Your task to perform on an android device: check android version Image 0: 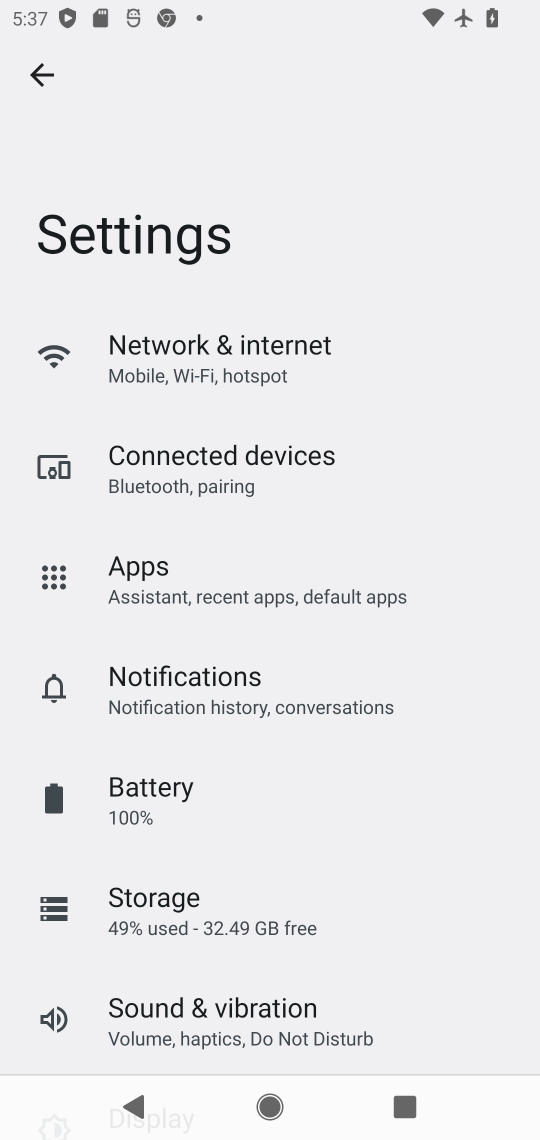
Step 0: drag from (357, 950) to (313, 311)
Your task to perform on an android device: check android version Image 1: 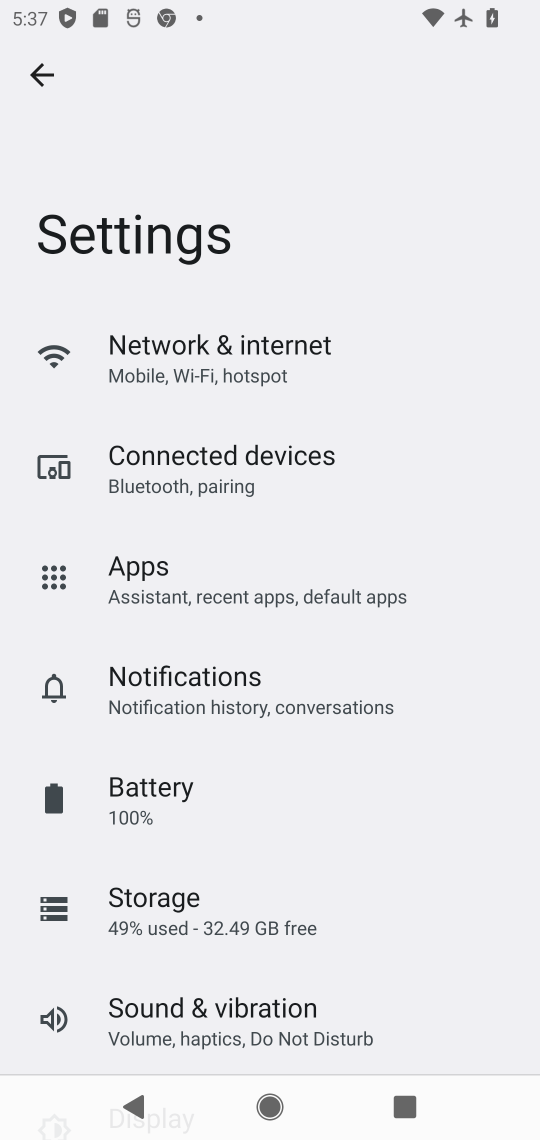
Step 1: drag from (301, 954) to (281, 344)
Your task to perform on an android device: check android version Image 2: 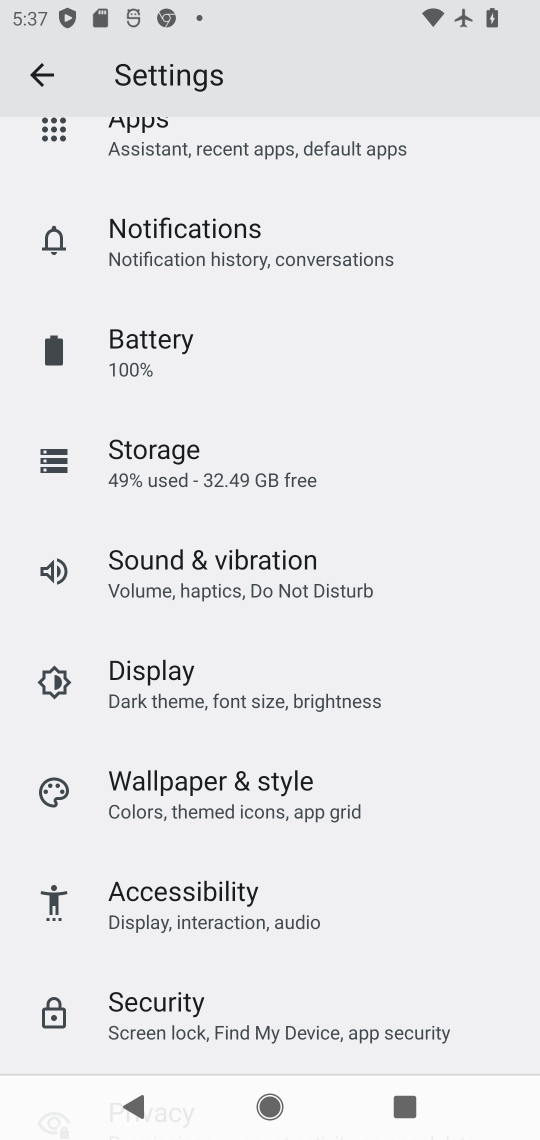
Step 2: drag from (363, 951) to (343, 216)
Your task to perform on an android device: check android version Image 3: 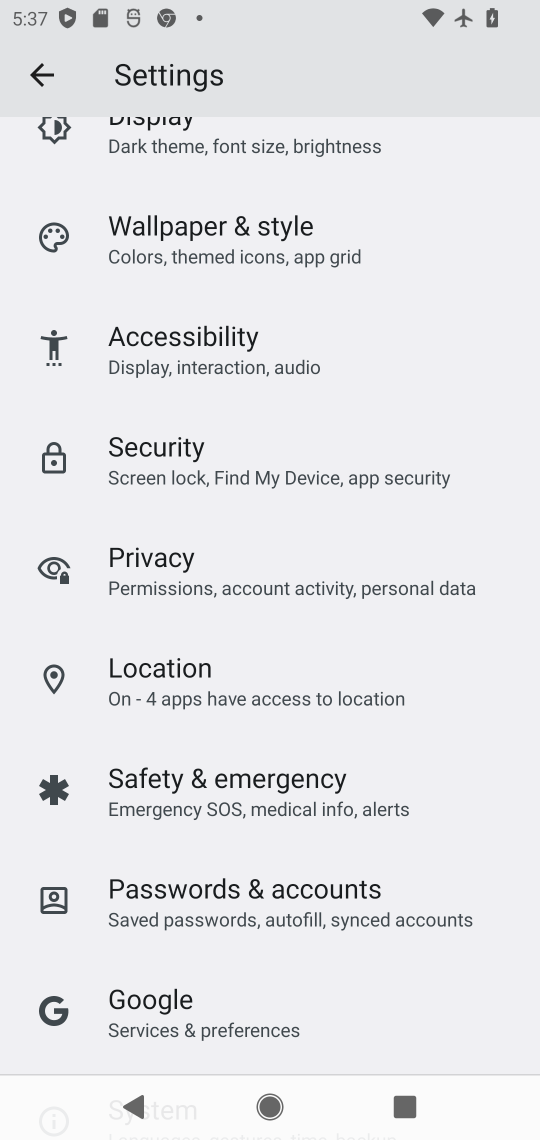
Step 3: drag from (351, 984) to (295, 397)
Your task to perform on an android device: check android version Image 4: 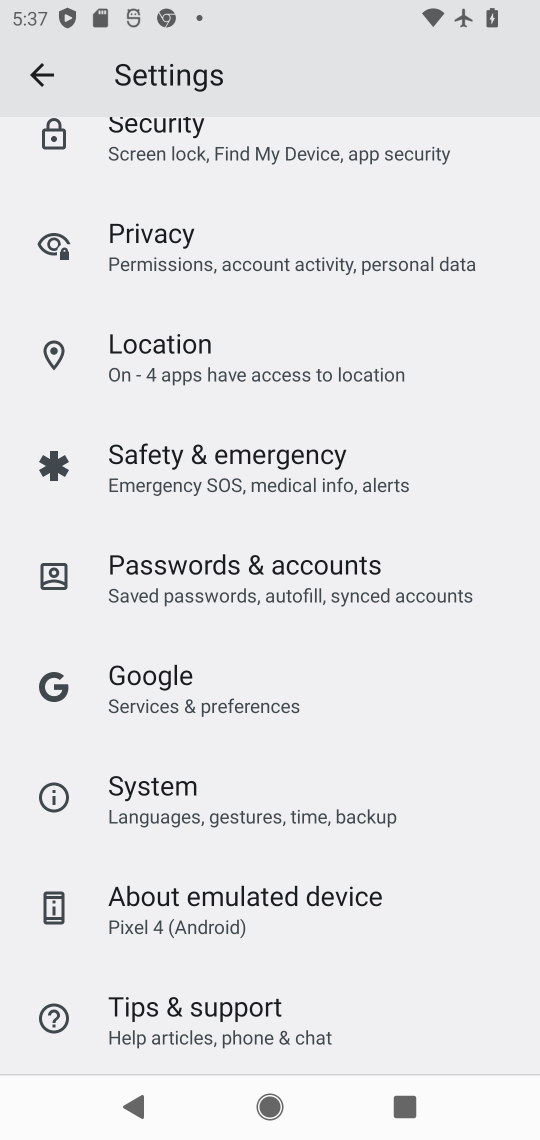
Step 4: click (219, 902)
Your task to perform on an android device: check android version Image 5: 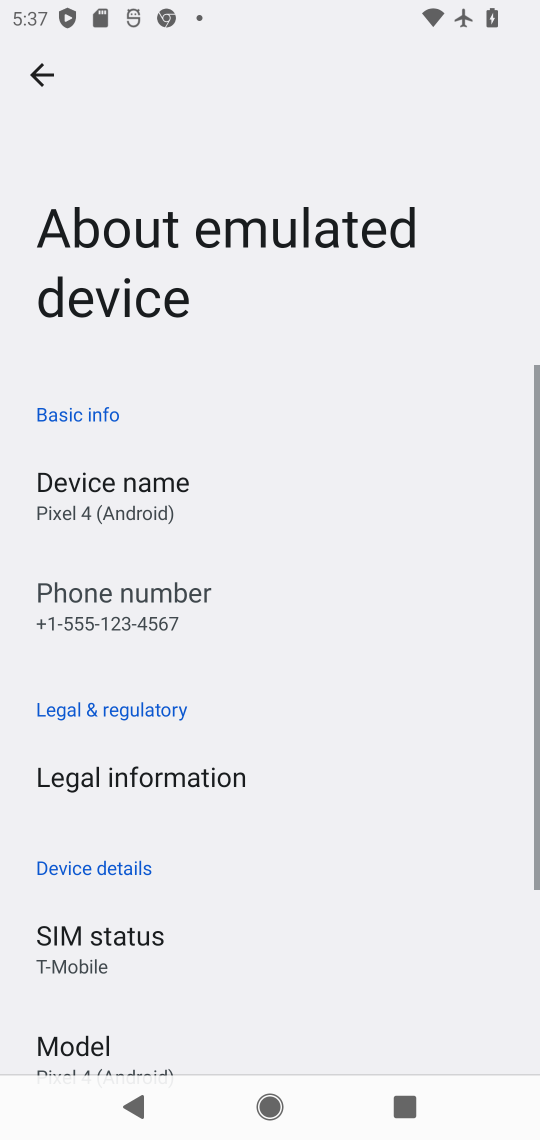
Step 5: drag from (236, 960) to (205, 620)
Your task to perform on an android device: check android version Image 6: 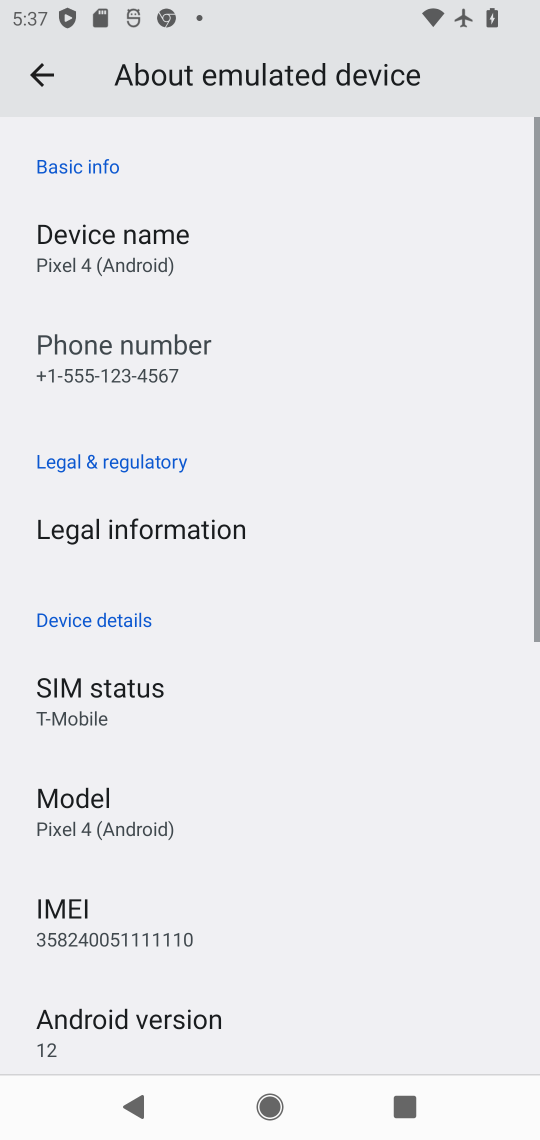
Step 6: click (140, 1021)
Your task to perform on an android device: check android version Image 7: 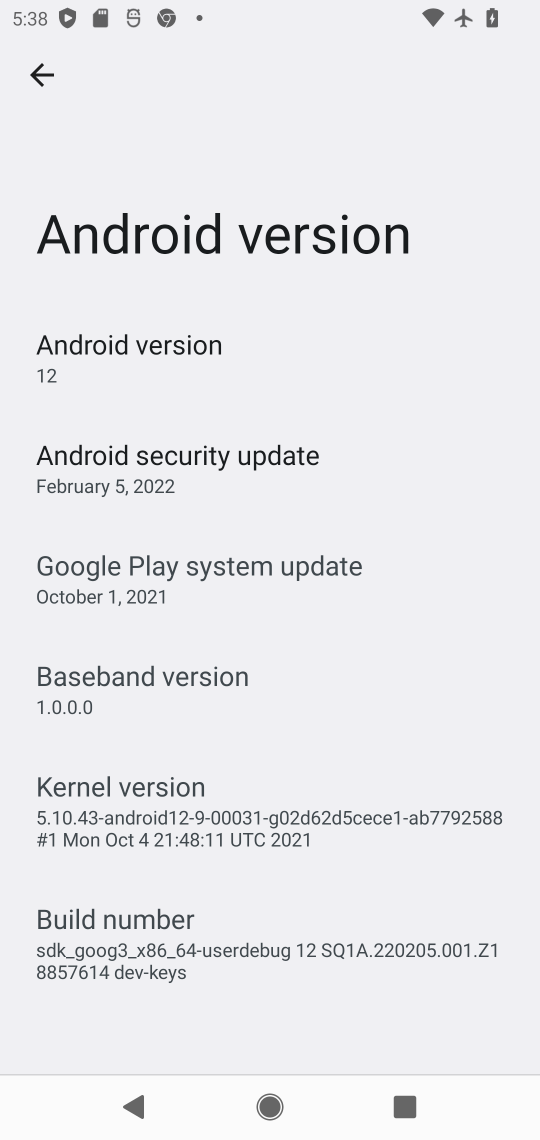
Step 7: task complete